Your task to perform on an android device: Go to internet settings Image 0: 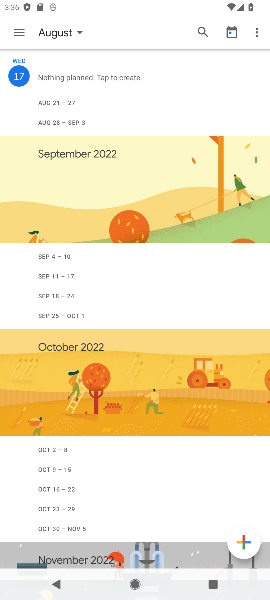
Step 0: press home button
Your task to perform on an android device: Go to internet settings Image 1: 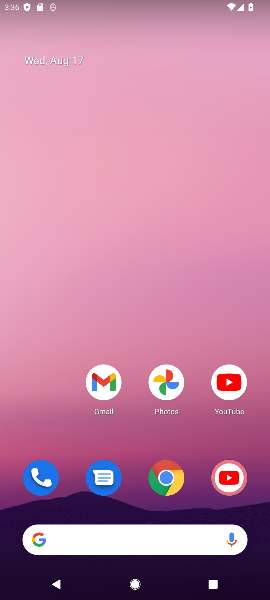
Step 1: drag from (137, 436) to (180, 31)
Your task to perform on an android device: Go to internet settings Image 2: 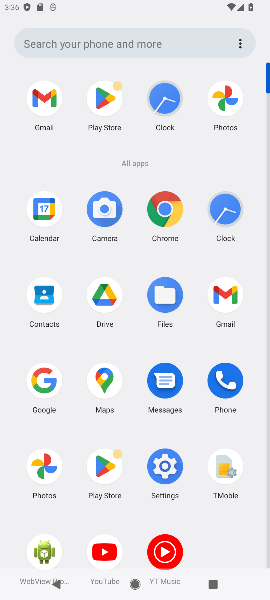
Step 2: click (168, 460)
Your task to perform on an android device: Go to internet settings Image 3: 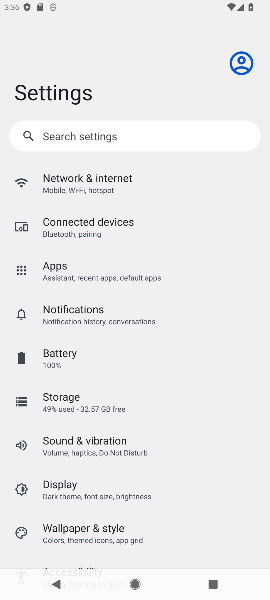
Step 3: click (102, 186)
Your task to perform on an android device: Go to internet settings Image 4: 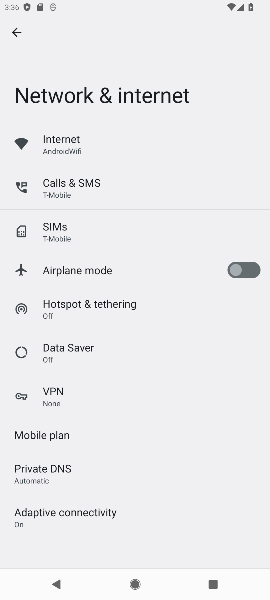
Step 4: click (87, 144)
Your task to perform on an android device: Go to internet settings Image 5: 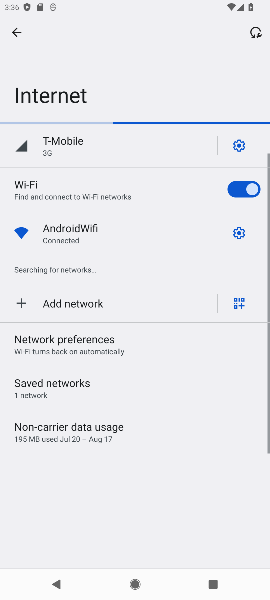
Step 5: task complete